Your task to perform on an android device: change text size in settings app Image 0: 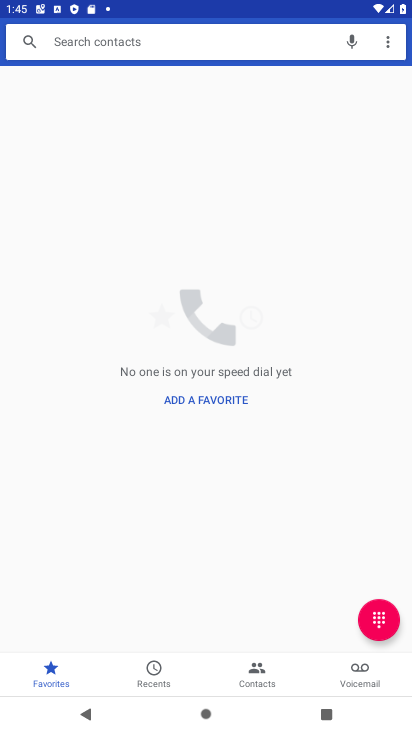
Step 0: press home button
Your task to perform on an android device: change text size in settings app Image 1: 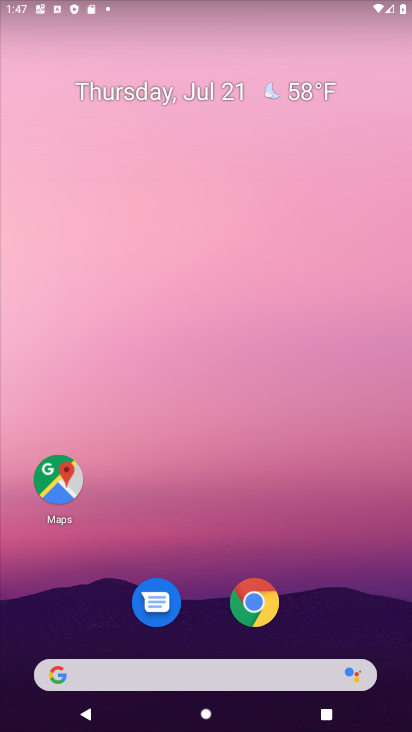
Step 1: drag from (360, 612) to (281, 6)
Your task to perform on an android device: change text size in settings app Image 2: 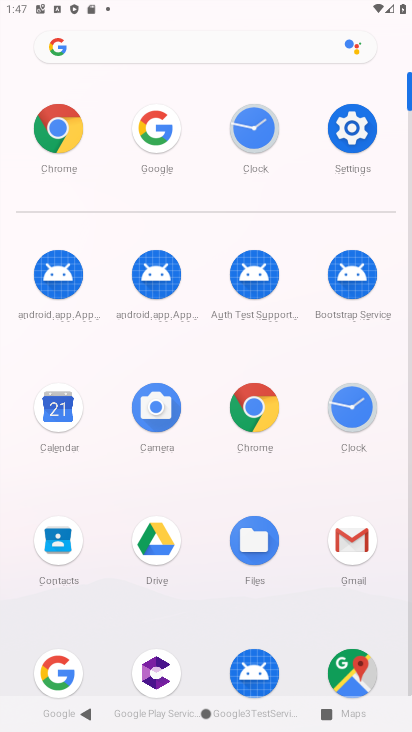
Step 2: click (363, 138)
Your task to perform on an android device: change text size in settings app Image 3: 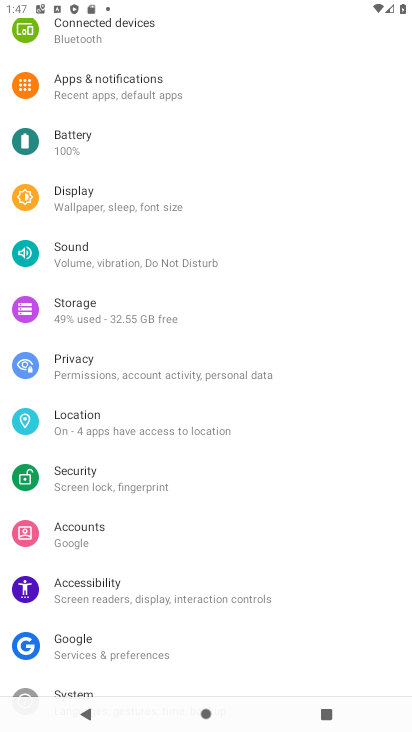
Step 3: click (92, 211)
Your task to perform on an android device: change text size in settings app Image 4: 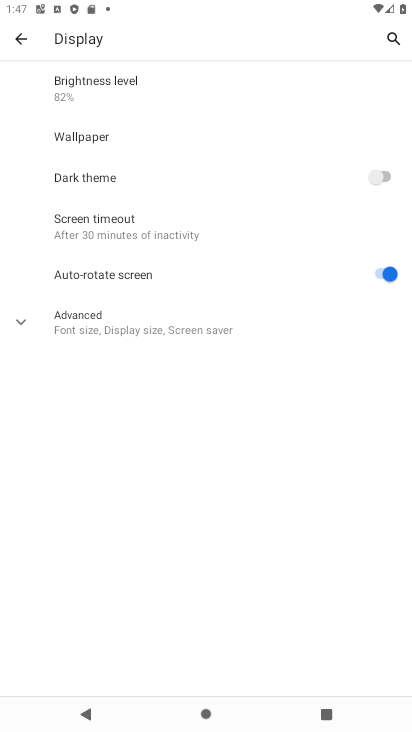
Step 4: click (67, 317)
Your task to perform on an android device: change text size in settings app Image 5: 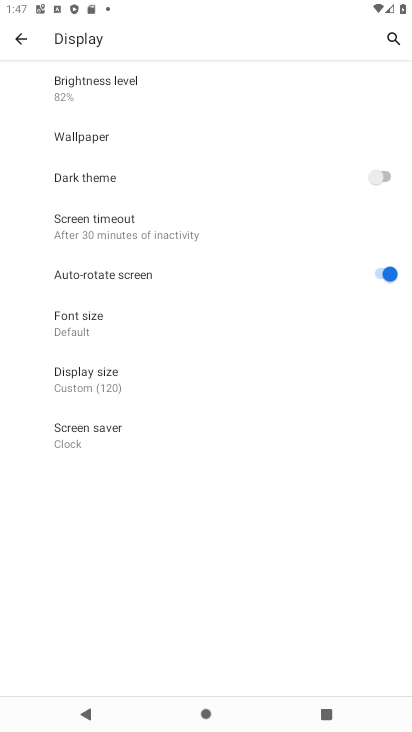
Step 5: click (72, 325)
Your task to perform on an android device: change text size in settings app Image 6: 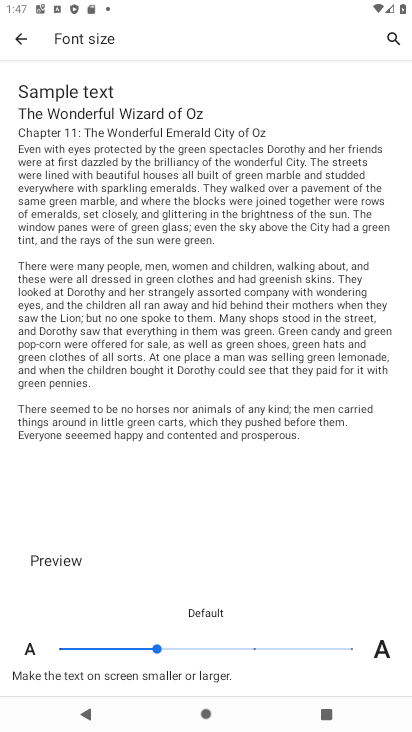
Step 6: click (352, 647)
Your task to perform on an android device: change text size in settings app Image 7: 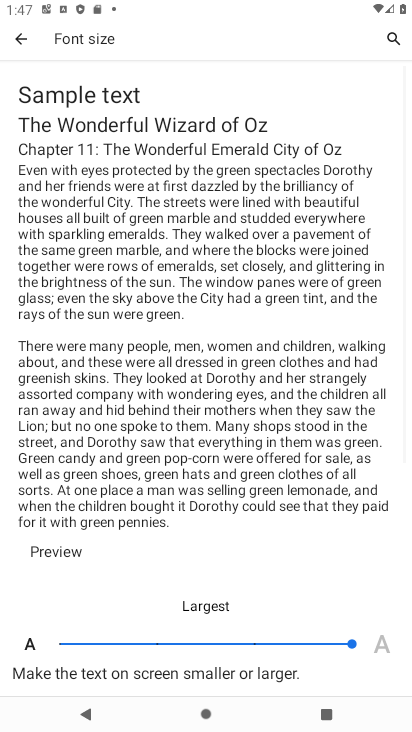
Step 7: task complete